Your task to perform on an android device: Play the last video I watched on Youtube Image 0: 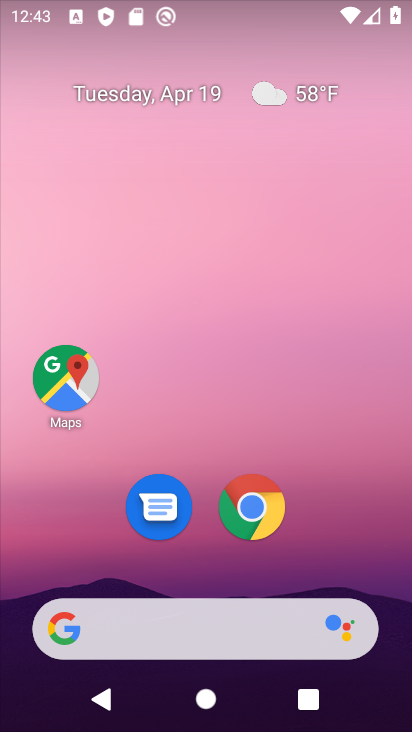
Step 0: drag from (199, 549) to (231, 59)
Your task to perform on an android device: Play the last video I watched on Youtube Image 1: 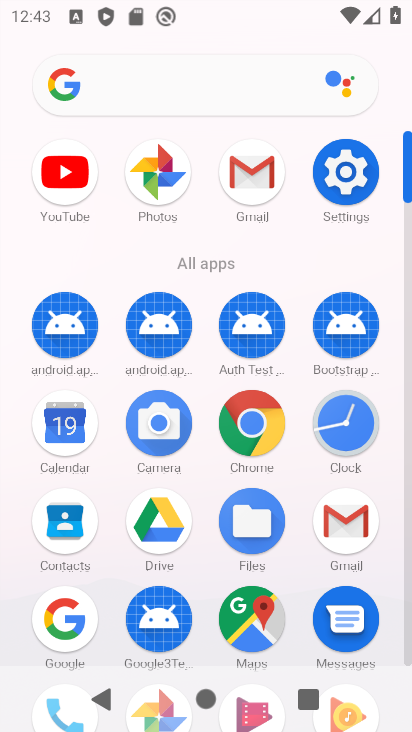
Step 1: click (63, 172)
Your task to perform on an android device: Play the last video I watched on Youtube Image 2: 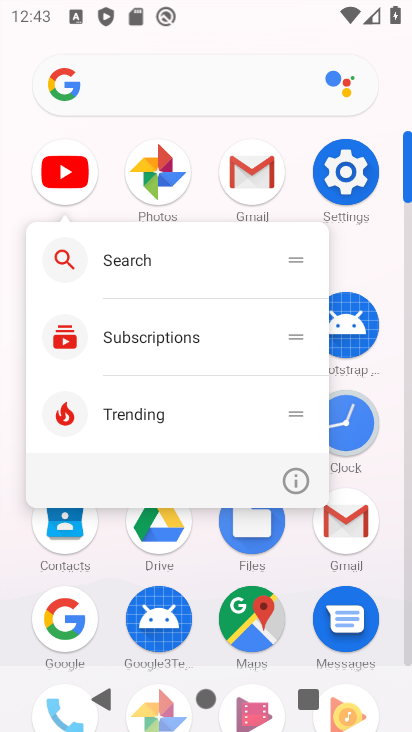
Step 2: click (65, 167)
Your task to perform on an android device: Play the last video I watched on Youtube Image 3: 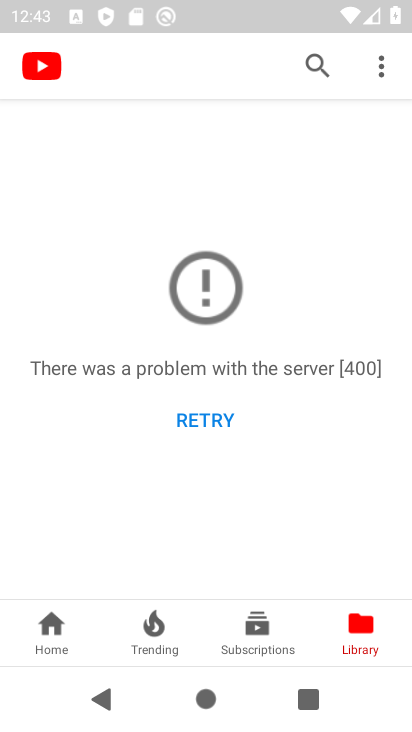
Step 3: click (381, 630)
Your task to perform on an android device: Play the last video I watched on Youtube Image 4: 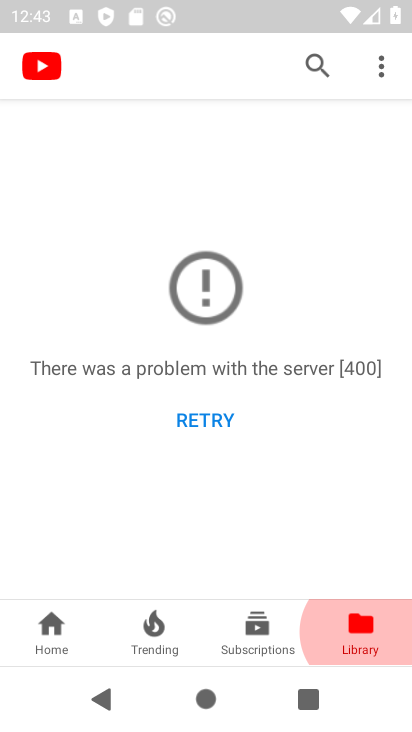
Step 4: click (360, 623)
Your task to perform on an android device: Play the last video I watched on Youtube Image 5: 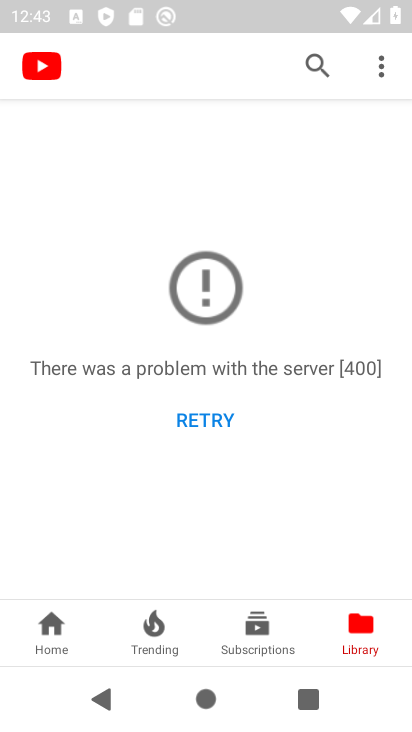
Step 5: task complete